Your task to perform on an android device: open the mobile data screen to see how much data has been used Image 0: 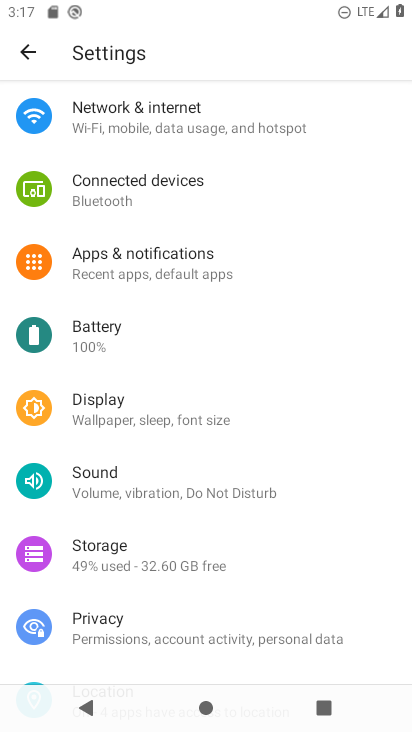
Step 0: drag from (364, 8) to (338, 557)
Your task to perform on an android device: open the mobile data screen to see how much data has been used Image 1: 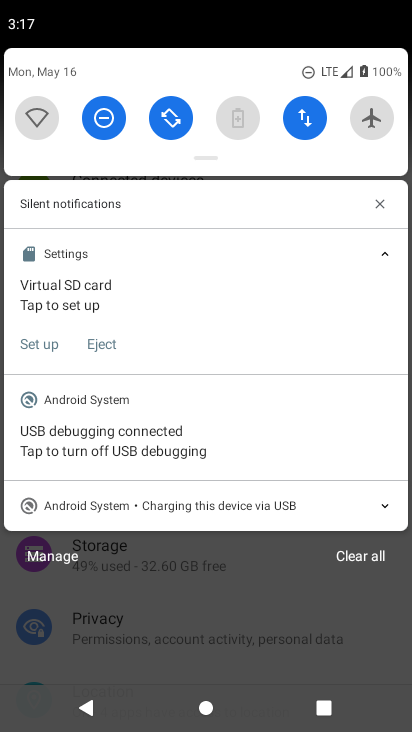
Step 1: click (289, 125)
Your task to perform on an android device: open the mobile data screen to see how much data has been used Image 2: 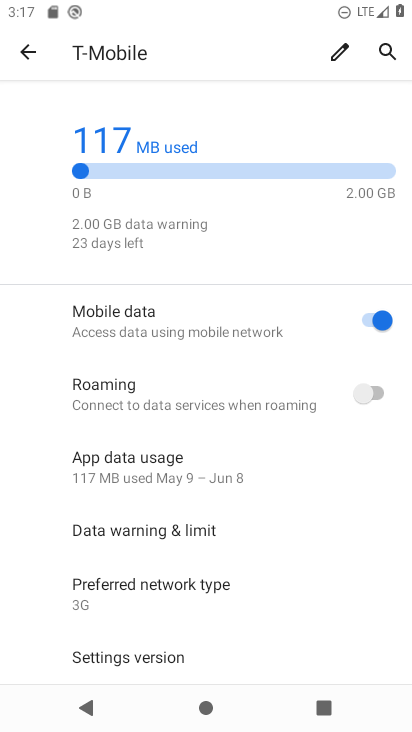
Step 2: task complete